Your task to perform on an android device: Do I have any events tomorrow? Image 0: 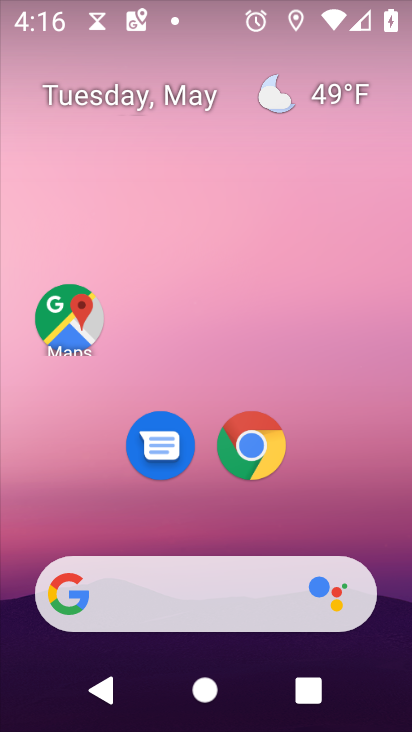
Step 0: drag from (355, 552) to (378, 85)
Your task to perform on an android device: Do I have any events tomorrow? Image 1: 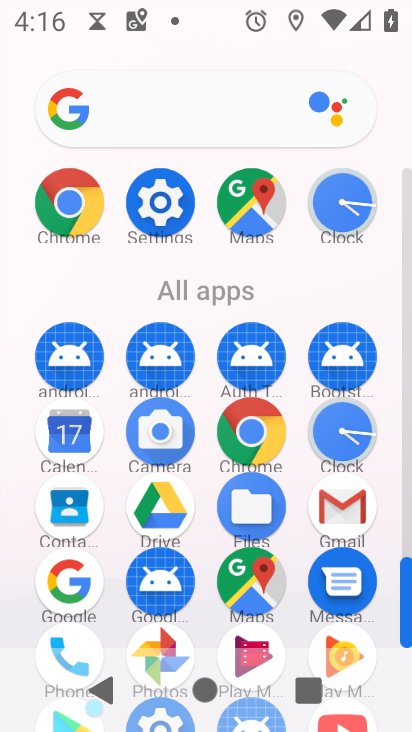
Step 1: click (77, 455)
Your task to perform on an android device: Do I have any events tomorrow? Image 2: 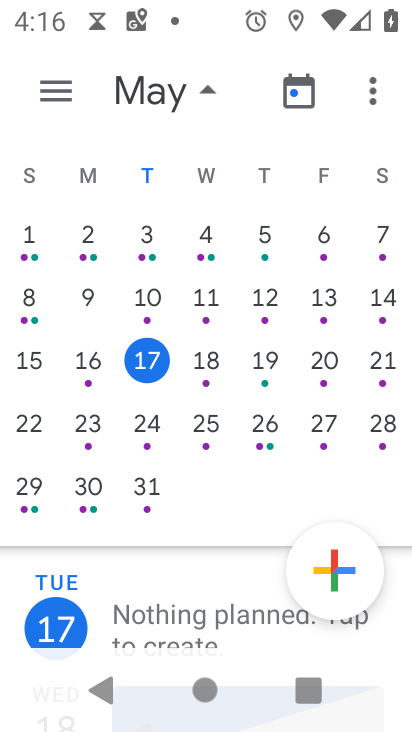
Step 2: click (212, 364)
Your task to perform on an android device: Do I have any events tomorrow? Image 3: 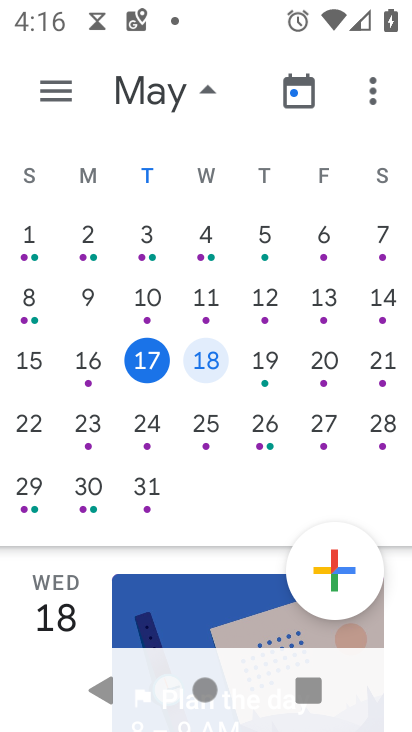
Step 3: task complete